Your task to perform on an android device: visit the assistant section in the google photos Image 0: 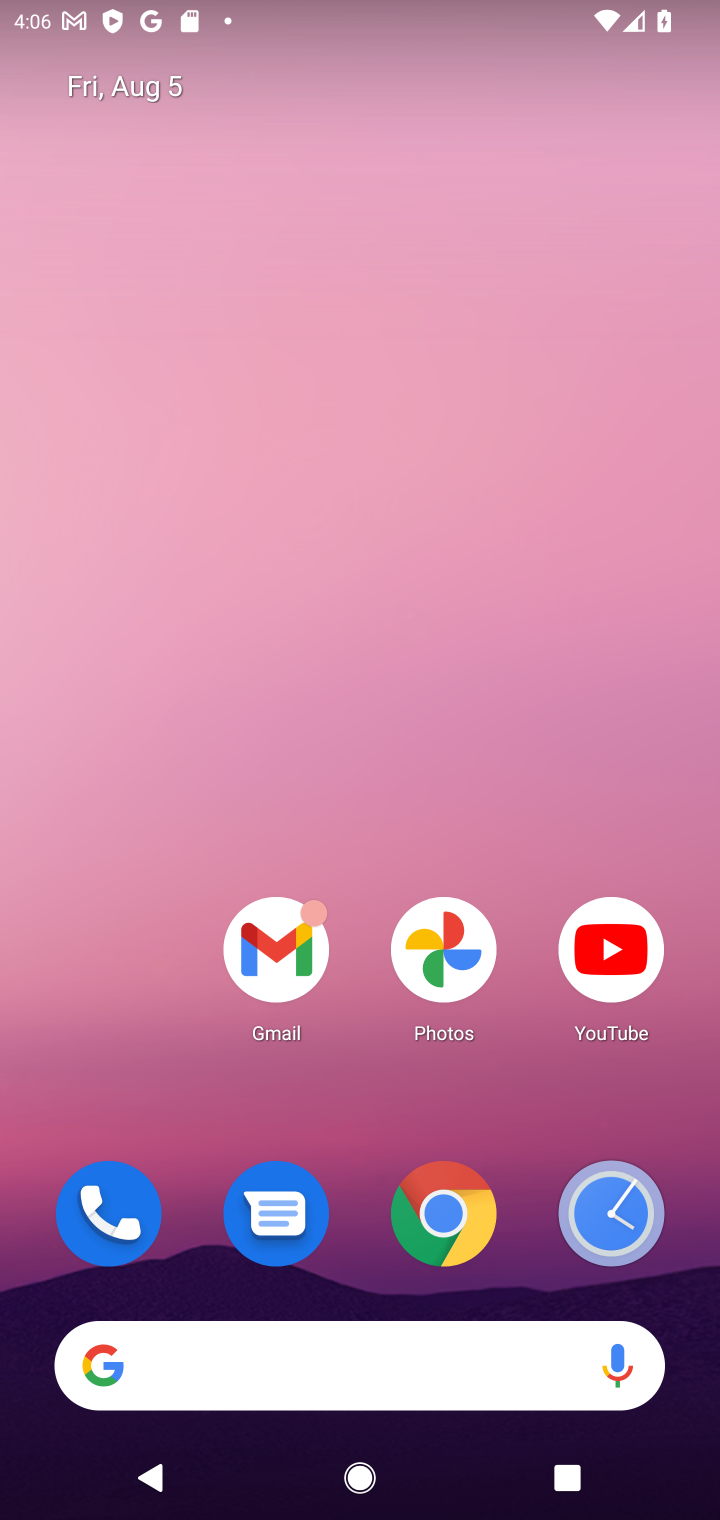
Step 0: click (432, 913)
Your task to perform on an android device: visit the assistant section in the google photos Image 1: 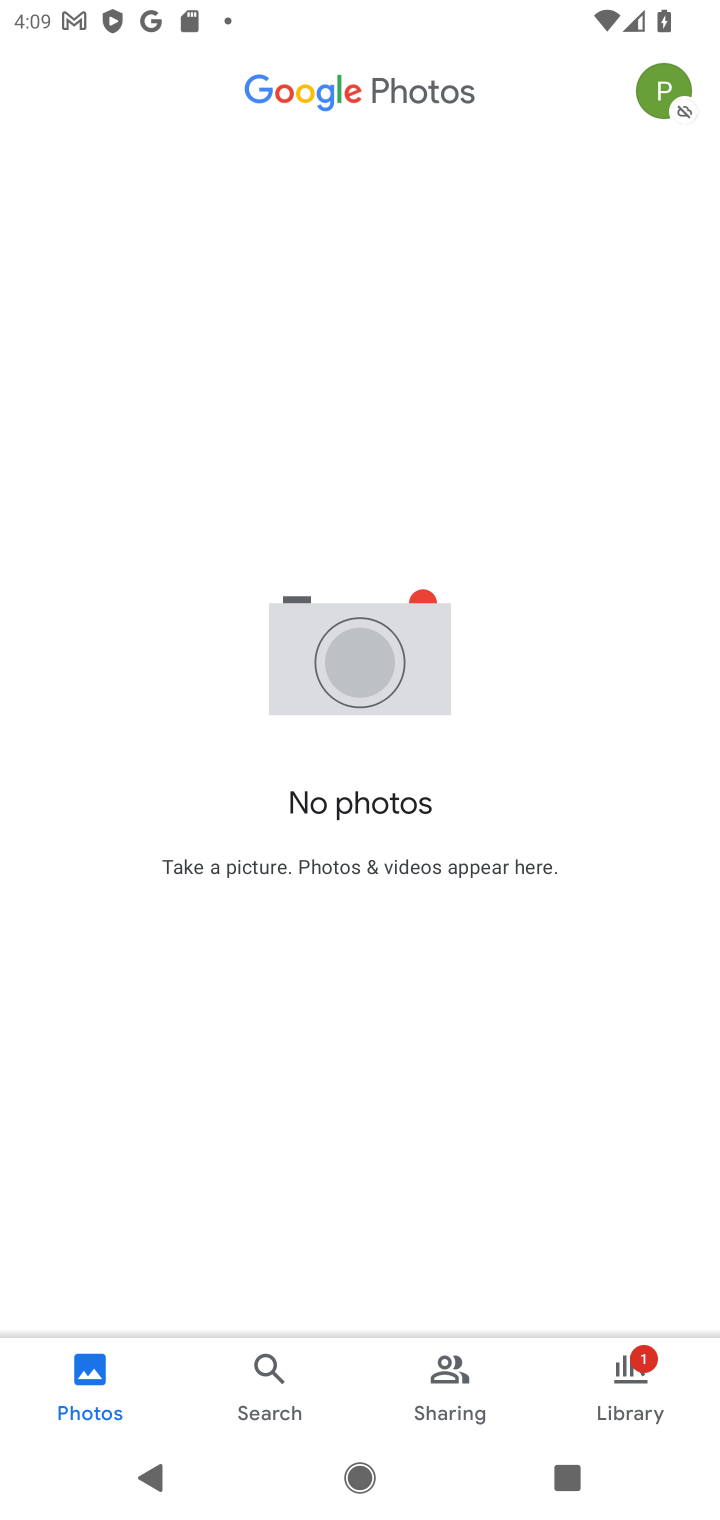
Step 1: task complete